Your task to perform on an android device: turn on notifications settings in the gmail app Image 0: 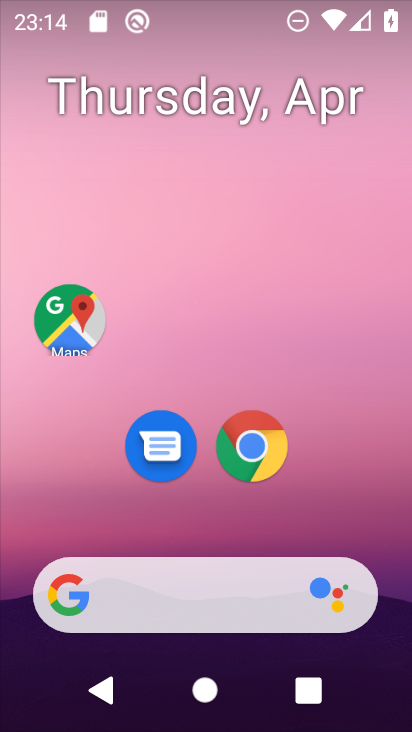
Step 0: drag from (204, 482) to (222, 149)
Your task to perform on an android device: turn on notifications settings in the gmail app Image 1: 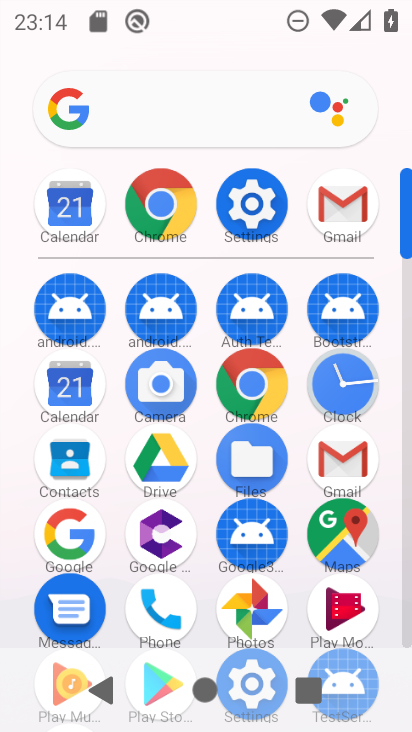
Step 1: click (343, 467)
Your task to perform on an android device: turn on notifications settings in the gmail app Image 2: 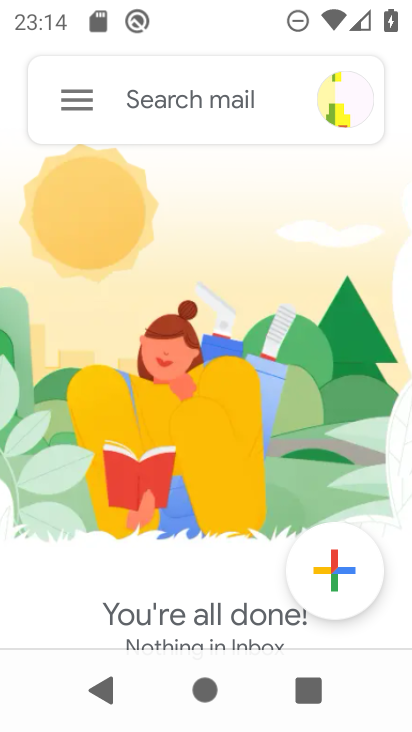
Step 2: click (79, 97)
Your task to perform on an android device: turn on notifications settings in the gmail app Image 3: 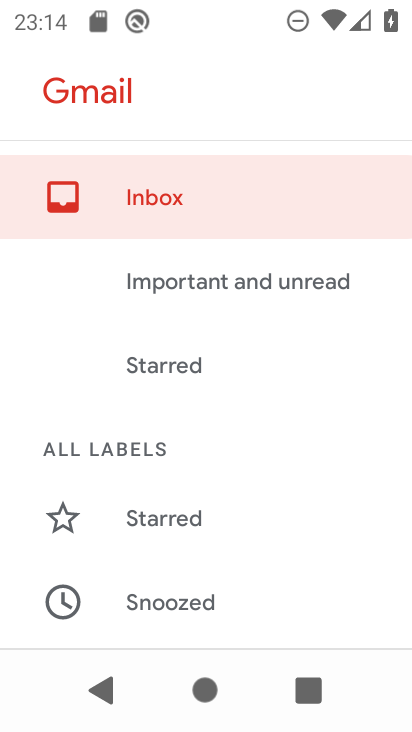
Step 3: drag from (181, 516) to (218, 67)
Your task to perform on an android device: turn on notifications settings in the gmail app Image 4: 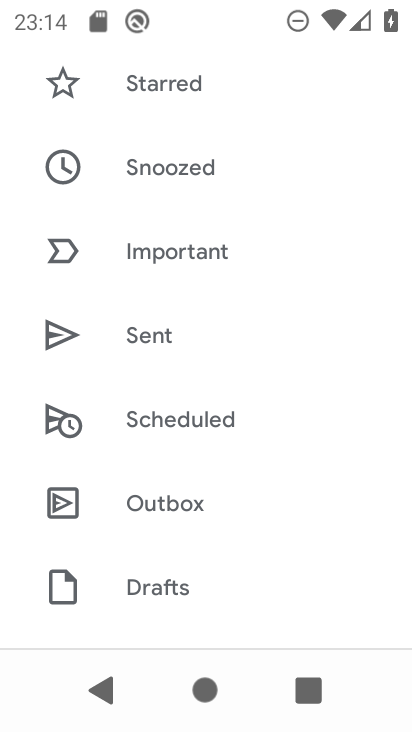
Step 4: drag from (156, 508) to (198, 194)
Your task to perform on an android device: turn on notifications settings in the gmail app Image 5: 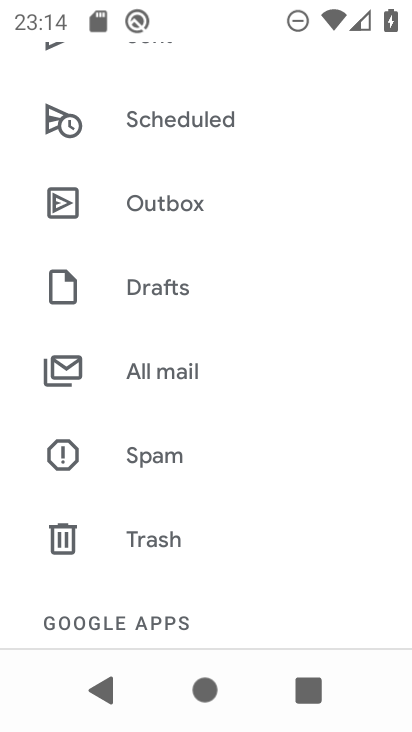
Step 5: drag from (121, 544) to (224, 50)
Your task to perform on an android device: turn on notifications settings in the gmail app Image 6: 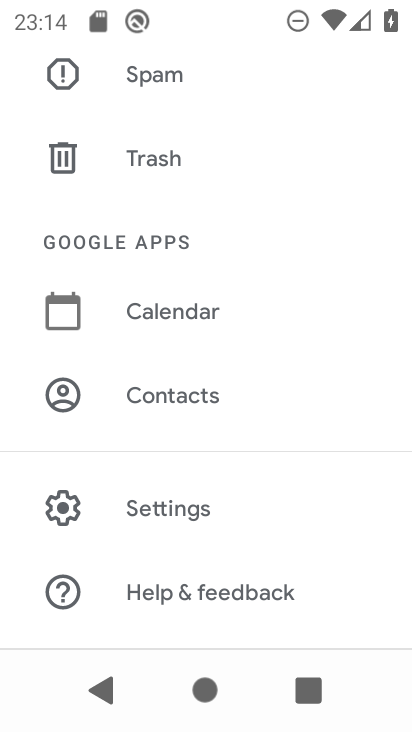
Step 6: click (185, 492)
Your task to perform on an android device: turn on notifications settings in the gmail app Image 7: 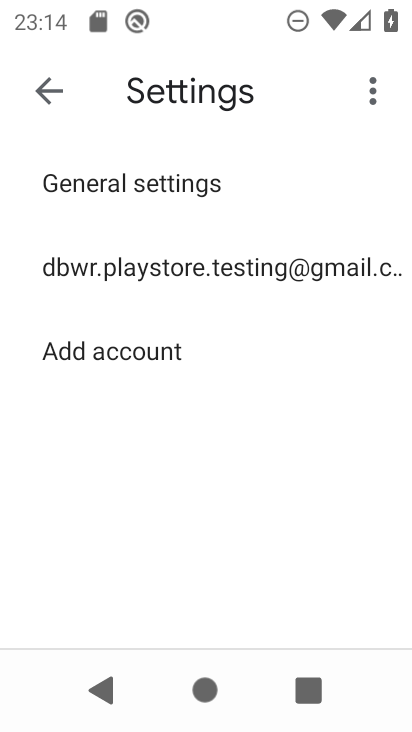
Step 7: click (203, 263)
Your task to perform on an android device: turn on notifications settings in the gmail app Image 8: 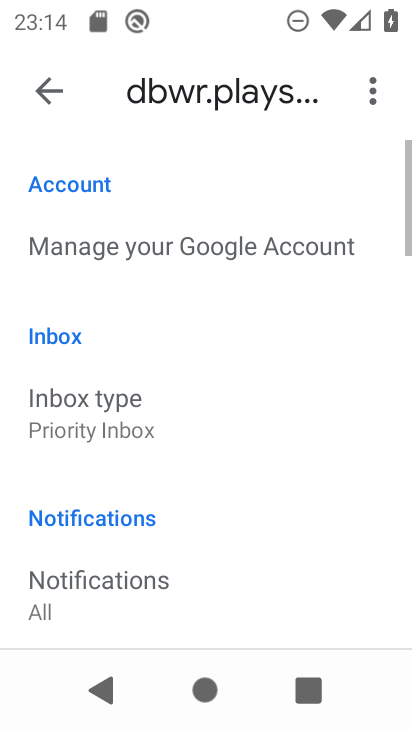
Step 8: drag from (224, 519) to (244, 185)
Your task to perform on an android device: turn on notifications settings in the gmail app Image 9: 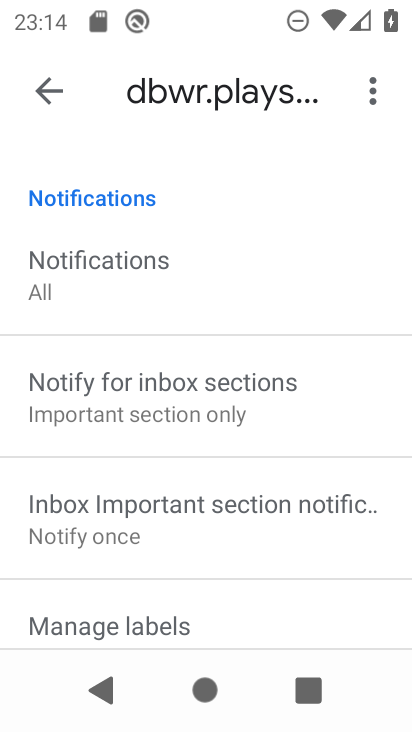
Step 9: drag from (190, 614) to (243, 275)
Your task to perform on an android device: turn on notifications settings in the gmail app Image 10: 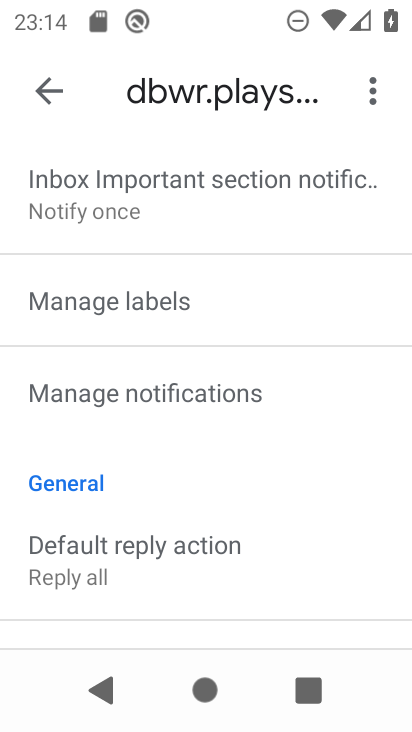
Step 10: click (140, 388)
Your task to perform on an android device: turn on notifications settings in the gmail app Image 11: 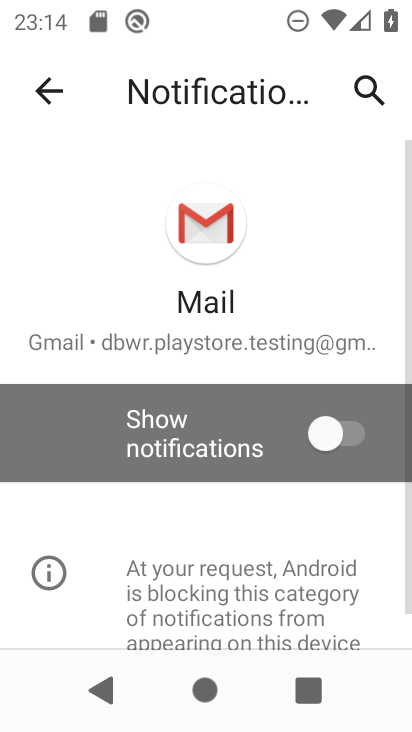
Step 11: click (276, 406)
Your task to perform on an android device: turn on notifications settings in the gmail app Image 12: 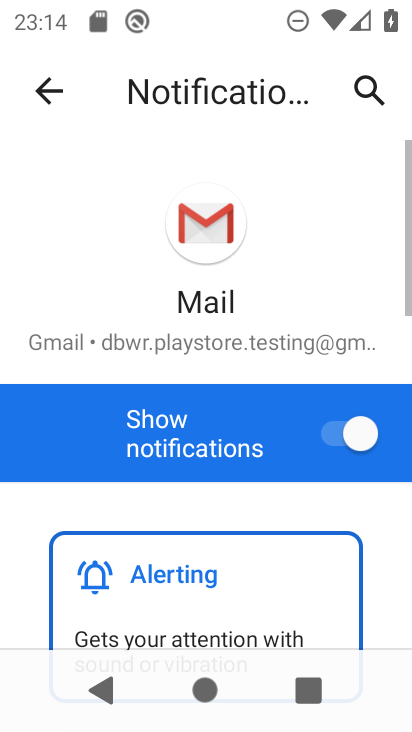
Step 12: task complete